Your task to perform on an android device: Open network settings Image 0: 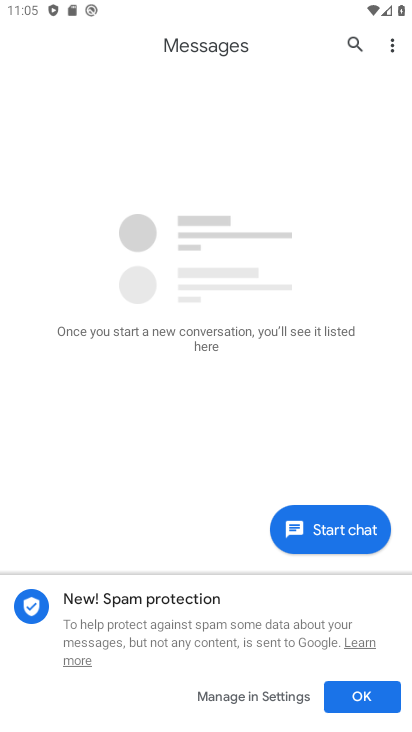
Step 0: press home button
Your task to perform on an android device: Open network settings Image 1: 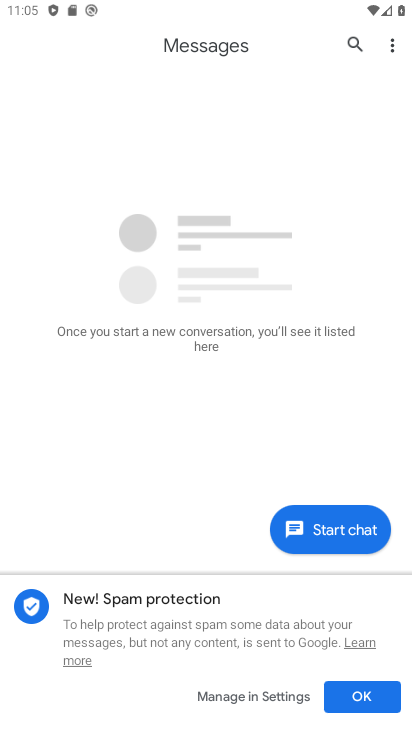
Step 1: click (181, 319)
Your task to perform on an android device: Open network settings Image 2: 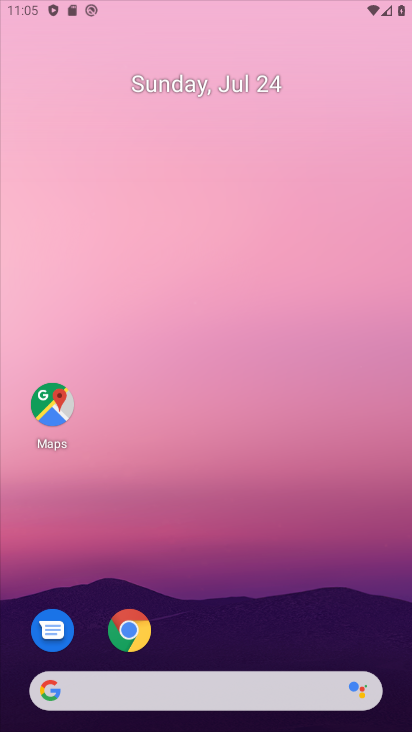
Step 2: drag from (228, 517) to (191, 13)
Your task to perform on an android device: Open network settings Image 3: 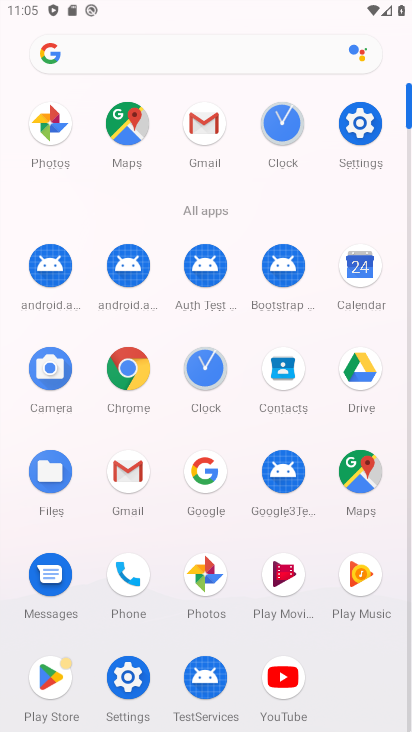
Step 3: click (129, 672)
Your task to perform on an android device: Open network settings Image 4: 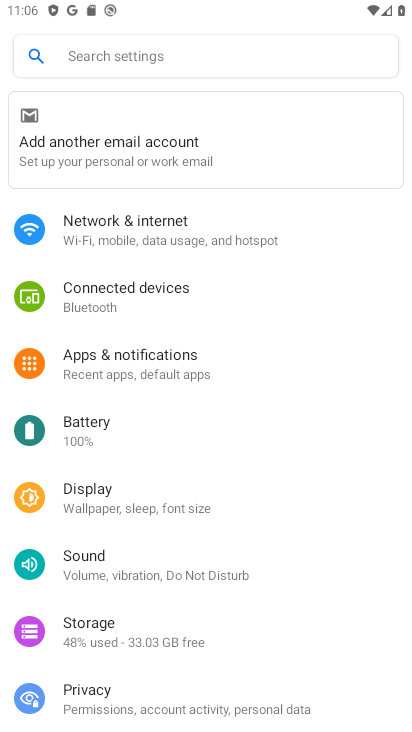
Step 4: click (110, 374)
Your task to perform on an android device: Open network settings Image 5: 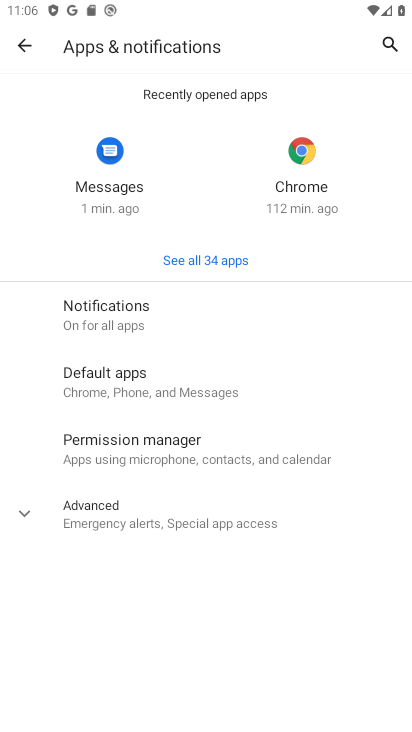
Step 5: click (31, 48)
Your task to perform on an android device: Open network settings Image 6: 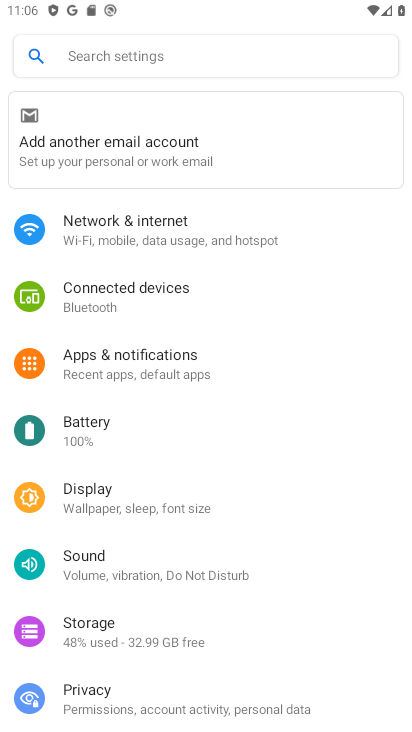
Step 6: click (125, 230)
Your task to perform on an android device: Open network settings Image 7: 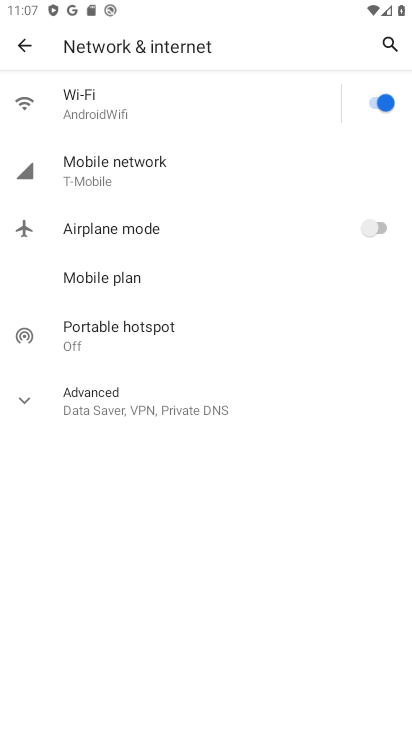
Step 7: task complete